Your task to perform on an android device: turn off wifi Image 0: 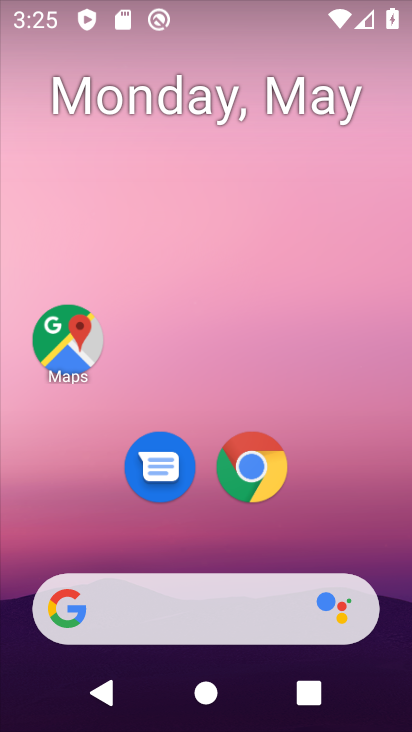
Step 0: drag from (243, 512) to (225, 184)
Your task to perform on an android device: turn off wifi Image 1: 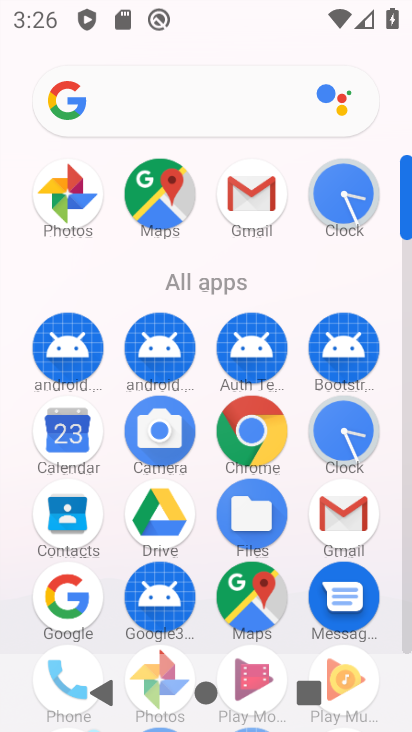
Step 1: drag from (296, 504) to (296, 230)
Your task to perform on an android device: turn off wifi Image 2: 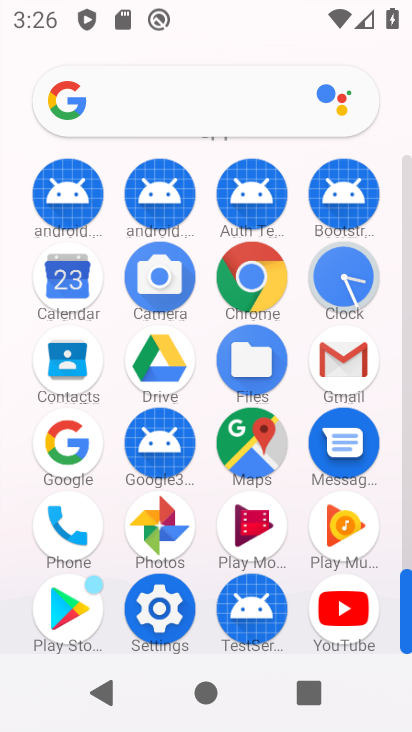
Step 2: click (162, 606)
Your task to perform on an android device: turn off wifi Image 3: 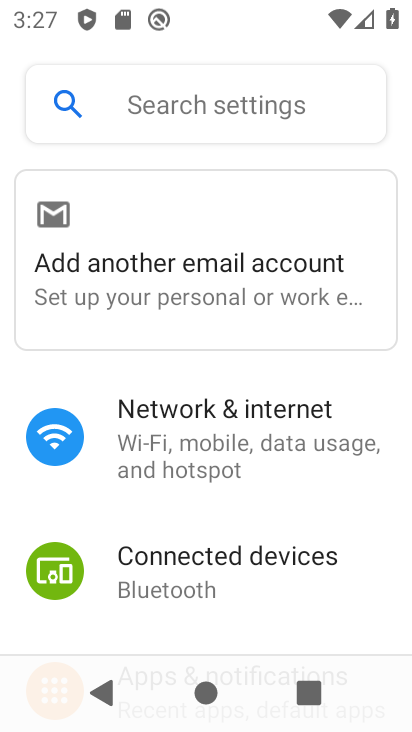
Step 3: click (221, 448)
Your task to perform on an android device: turn off wifi Image 4: 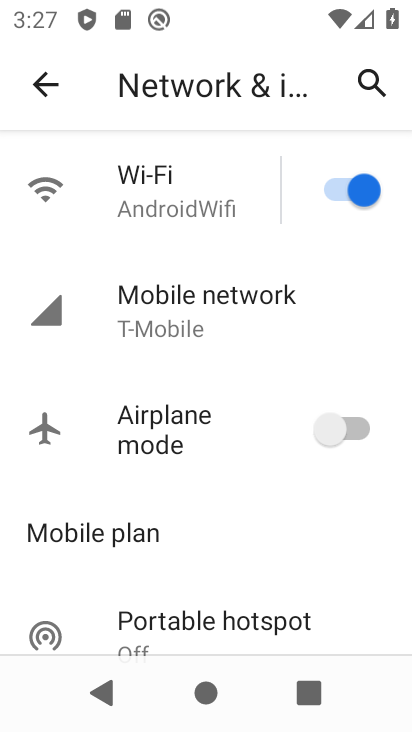
Step 4: click (340, 190)
Your task to perform on an android device: turn off wifi Image 5: 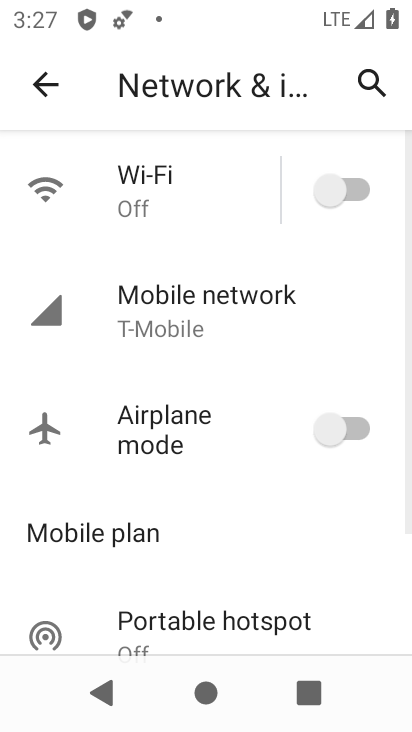
Step 5: task complete